Your task to perform on an android device: turn off translation in the chrome app Image 0: 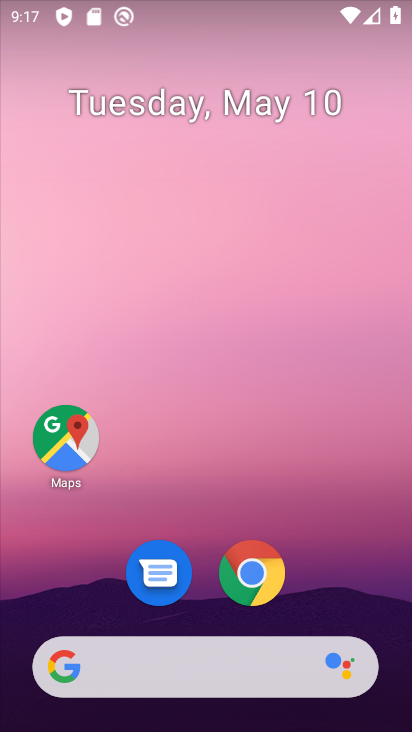
Step 0: click (310, 547)
Your task to perform on an android device: turn off translation in the chrome app Image 1: 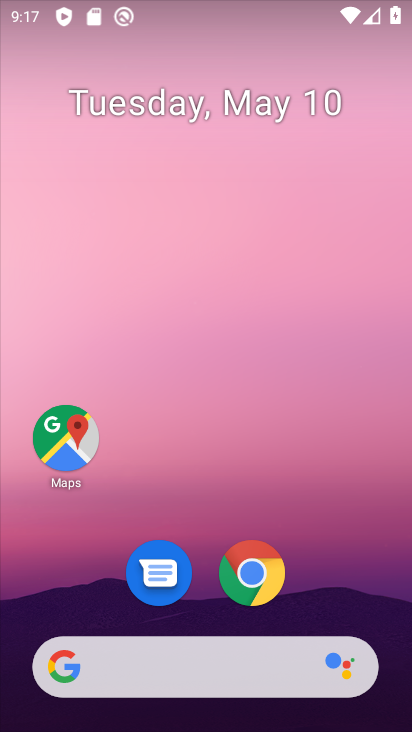
Step 1: click (259, 572)
Your task to perform on an android device: turn off translation in the chrome app Image 2: 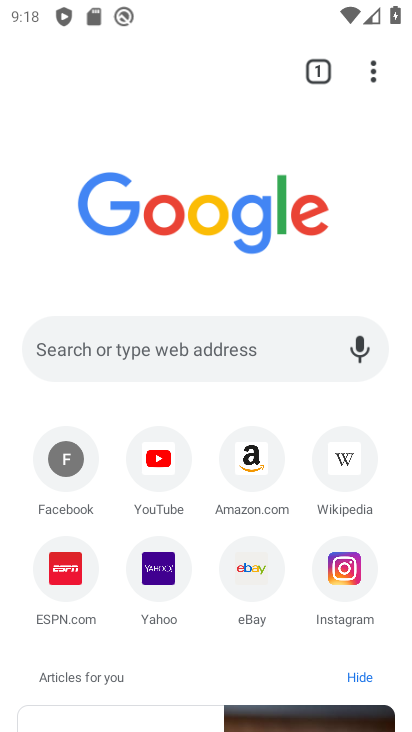
Step 2: click (368, 77)
Your task to perform on an android device: turn off translation in the chrome app Image 3: 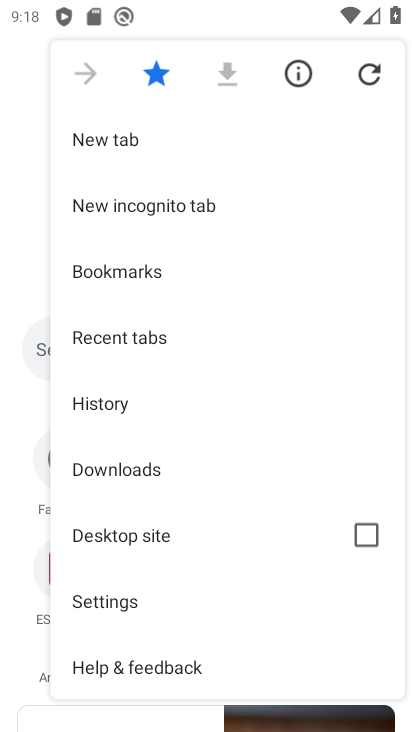
Step 3: click (102, 592)
Your task to perform on an android device: turn off translation in the chrome app Image 4: 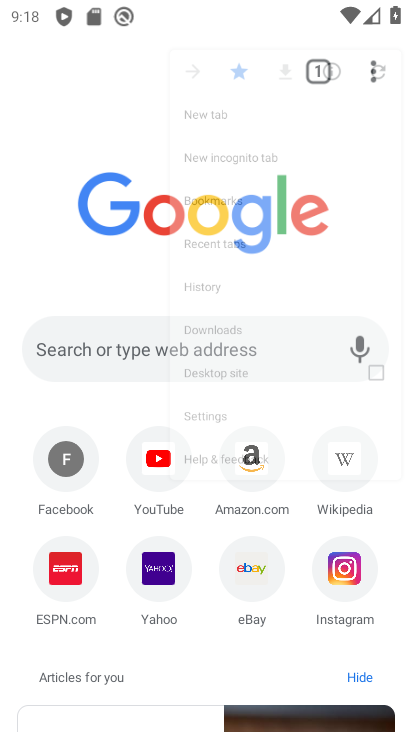
Step 4: click (102, 592)
Your task to perform on an android device: turn off translation in the chrome app Image 5: 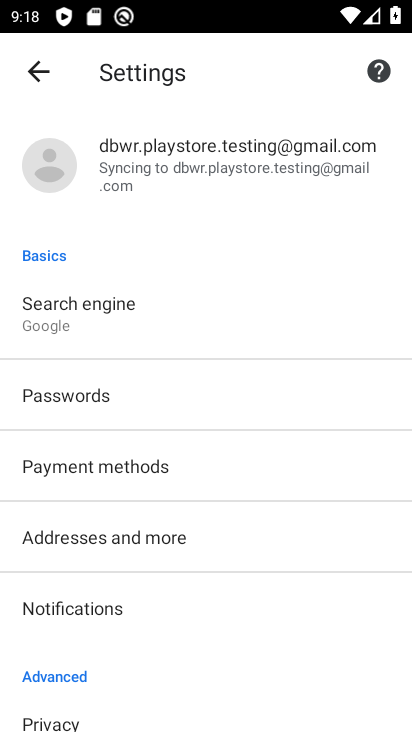
Step 5: drag from (121, 633) to (43, 360)
Your task to perform on an android device: turn off translation in the chrome app Image 6: 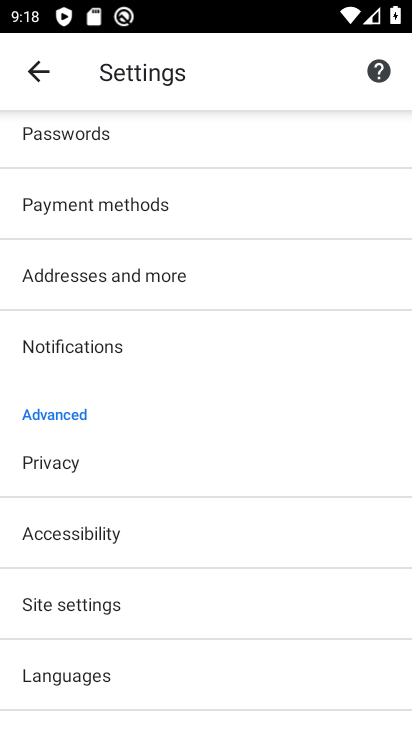
Step 6: click (98, 670)
Your task to perform on an android device: turn off translation in the chrome app Image 7: 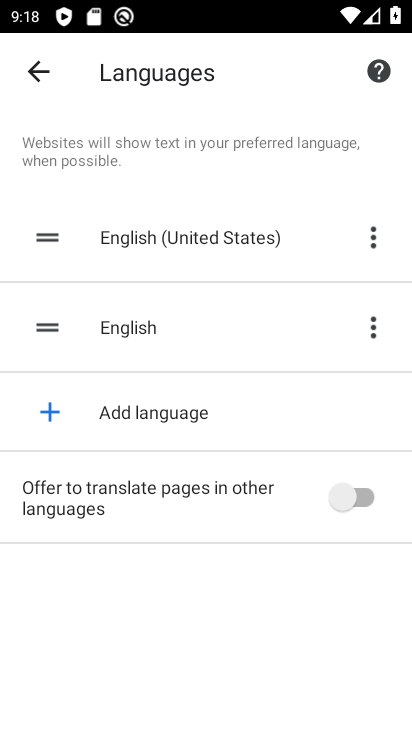
Step 7: task complete